Your task to perform on an android device: read, delete, or share a saved page in the chrome app Image 0: 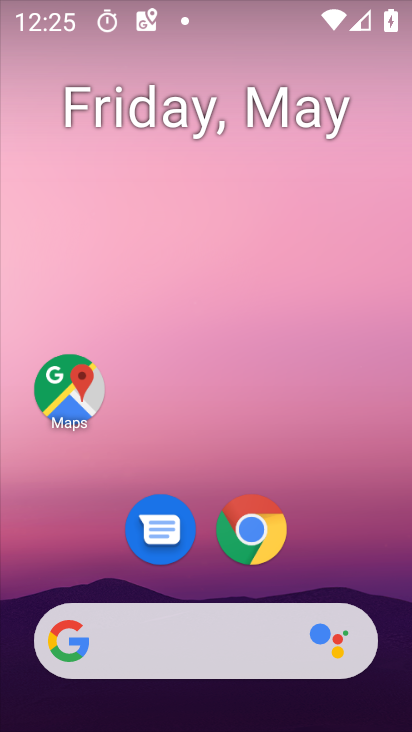
Step 0: task complete